Your task to perform on an android device: Open settings on Google Maps Image 0: 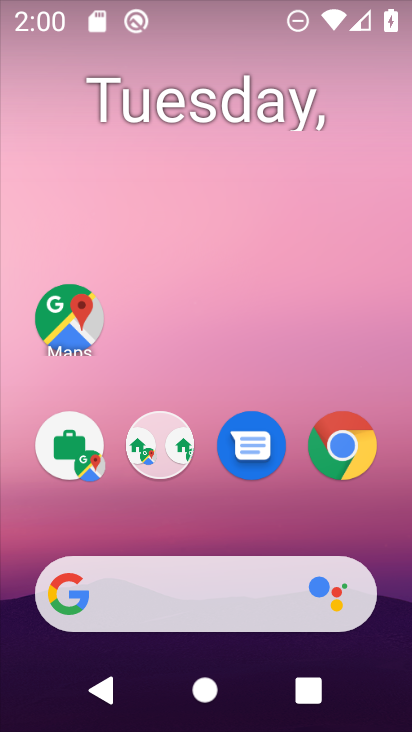
Step 0: click (88, 353)
Your task to perform on an android device: Open settings on Google Maps Image 1: 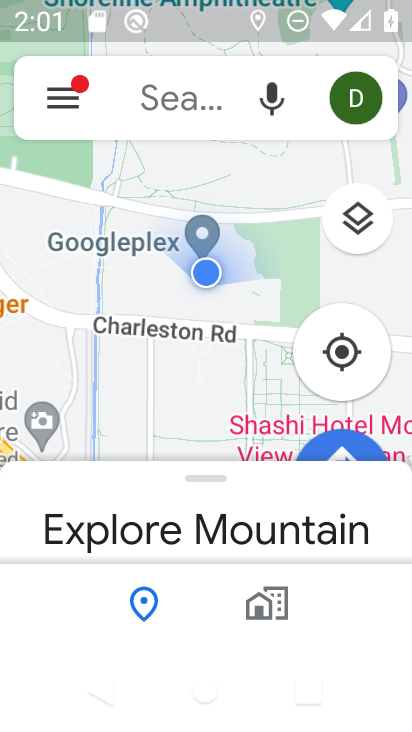
Step 1: click (123, 121)
Your task to perform on an android device: Open settings on Google Maps Image 2: 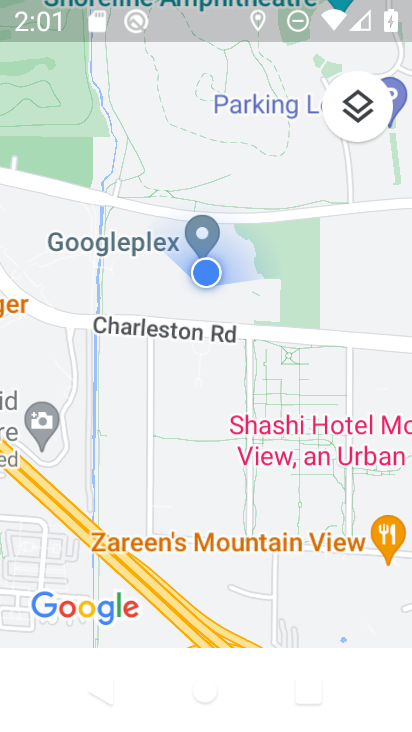
Step 2: click (349, 131)
Your task to perform on an android device: Open settings on Google Maps Image 3: 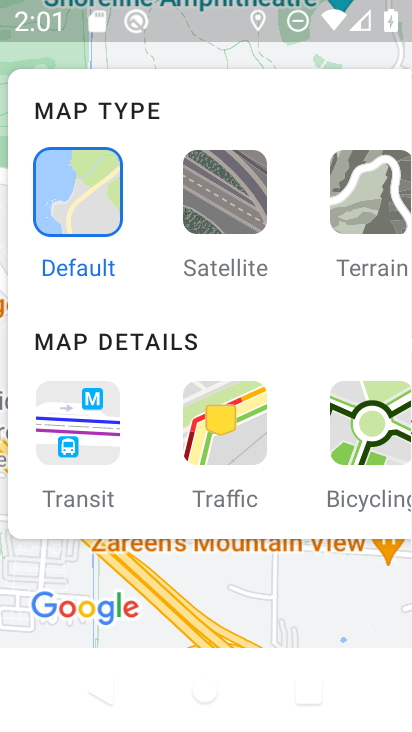
Step 3: press back button
Your task to perform on an android device: Open settings on Google Maps Image 4: 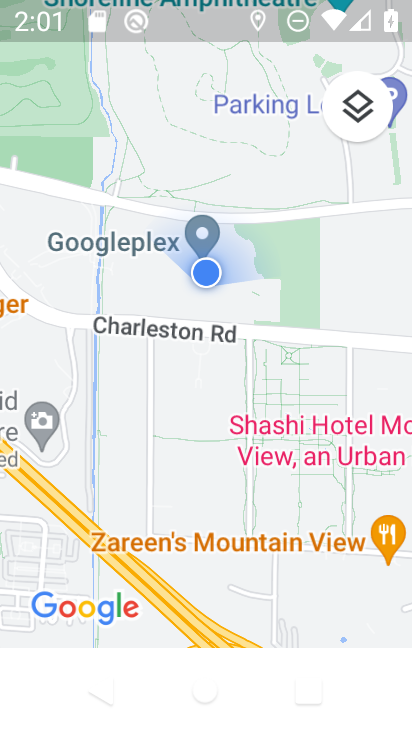
Step 4: press back button
Your task to perform on an android device: Open settings on Google Maps Image 5: 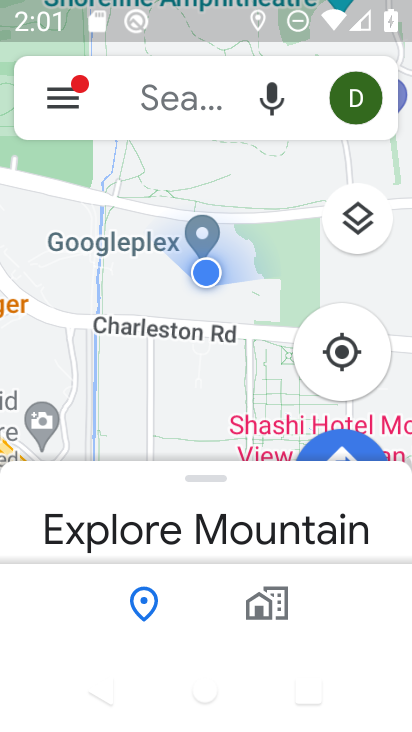
Step 5: click (74, 101)
Your task to perform on an android device: Open settings on Google Maps Image 6: 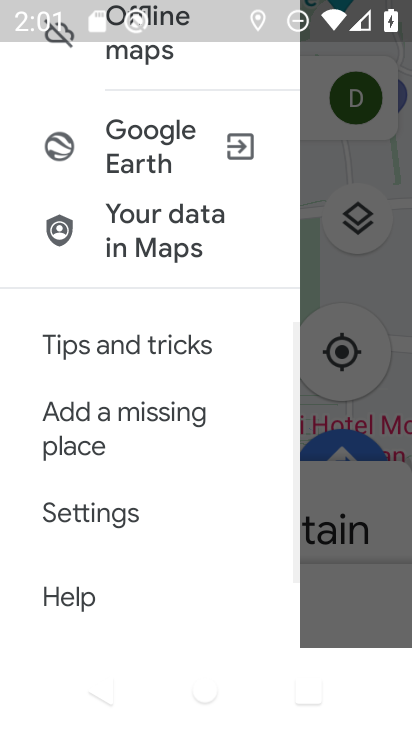
Step 6: click (125, 506)
Your task to perform on an android device: Open settings on Google Maps Image 7: 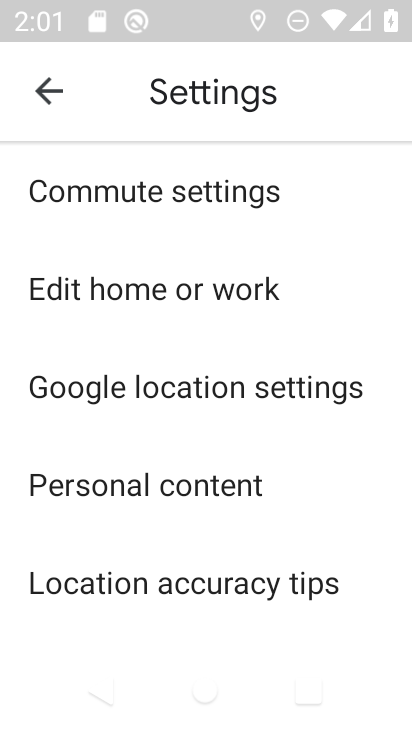
Step 7: task complete